Your task to perform on an android device: toggle improve location accuracy Image 0: 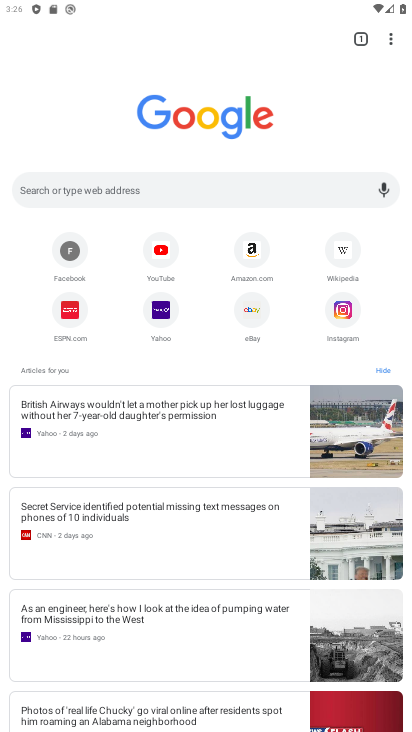
Step 0: press home button
Your task to perform on an android device: toggle improve location accuracy Image 1: 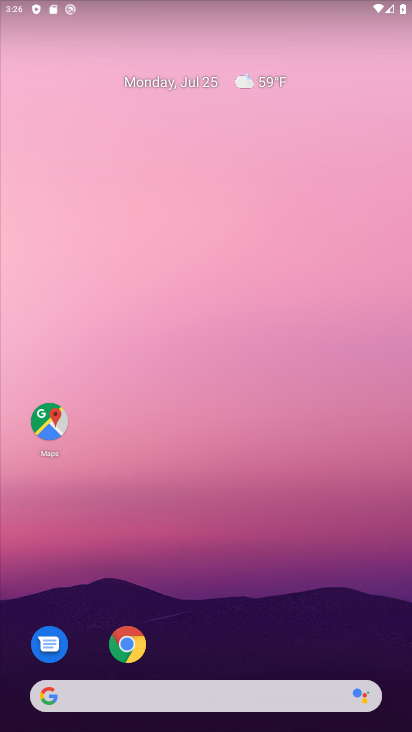
Step 1: drag from (134, 681) to (186, 171)
Your task to perform on an android device: toggle improve location accuracy Image 2: 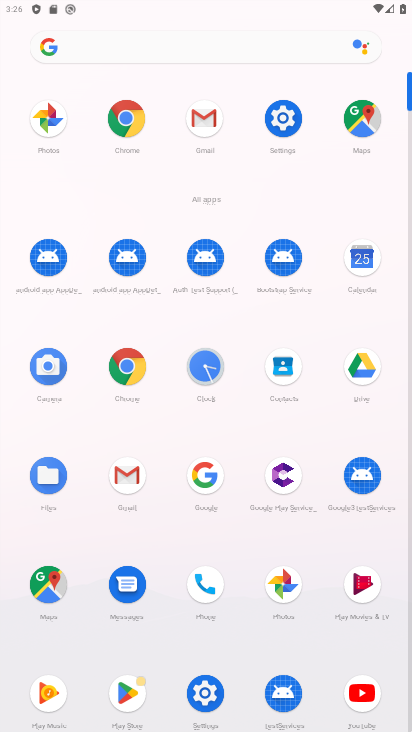
Step 2: click (277, 124)
Your task to perform on an android device: toggle improve location accuracy Image 3: 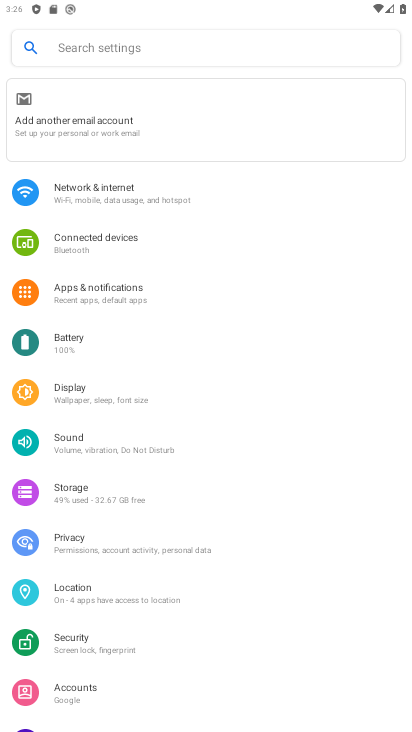
Step 3: click (108, 593)
Your task to perform on an android device: toggle improve location accuracy Image 4: 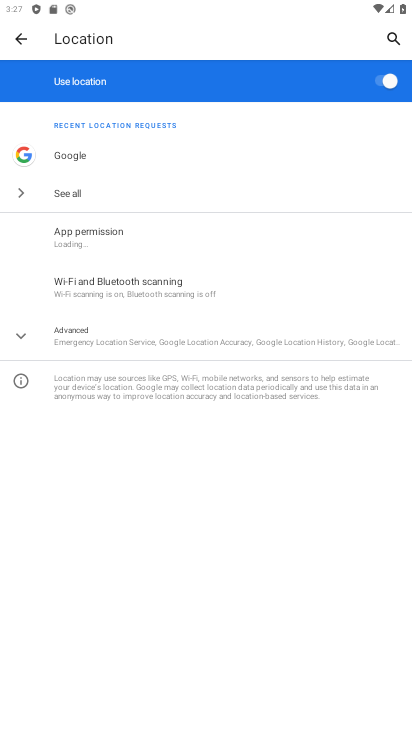
Step 4: click (89, 329)
Your task to perform on an android device: toggle improve location accuracy Image 5: 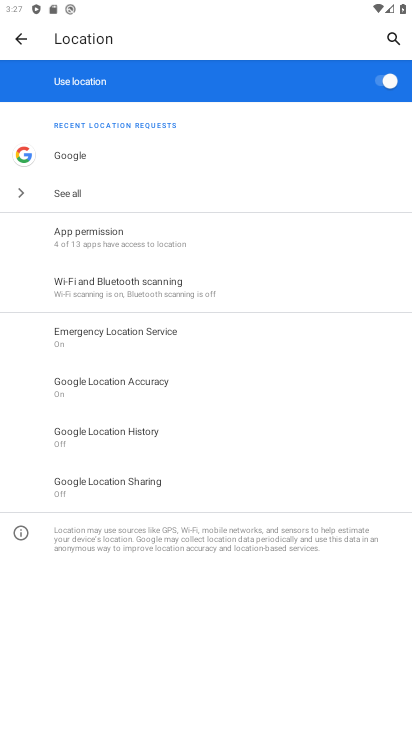
Step 5: click (138, 390)
Your task to perform on an android device: toggle improve location accuracy Image 6: 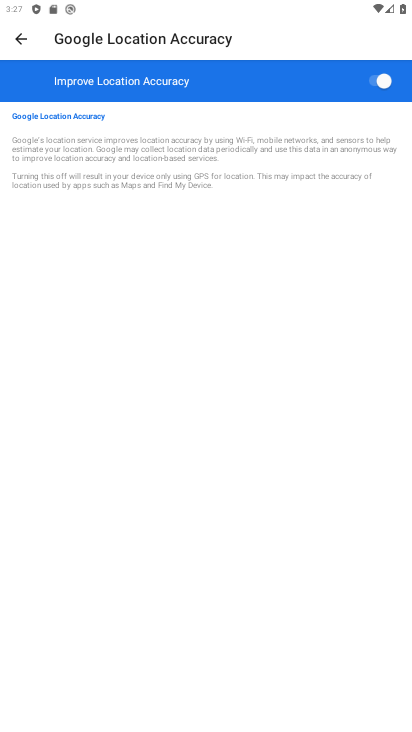
Step 6: click (374, 84)
Your task to perform on an android device: toggle improve location accuracy Image 7: 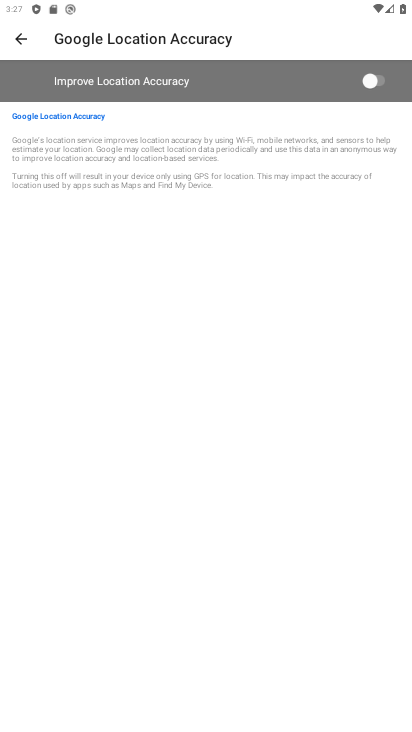
Step 7: task complete